Your task to perform on an android device: change alarm snooze length Image 0: 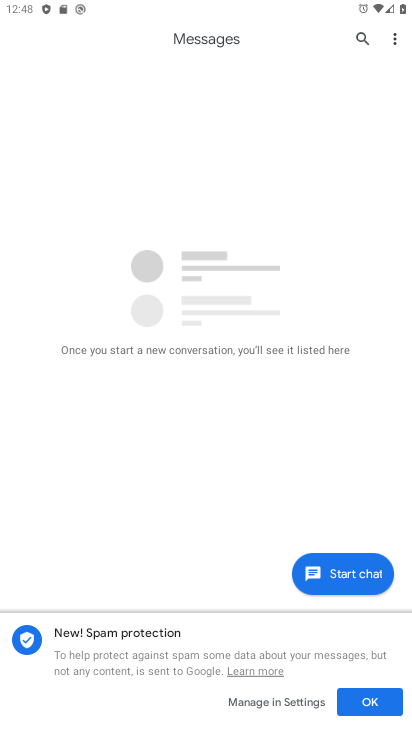
Step 0: press home button
Your task to perform on an android device: change alarm snooze length Image 1: 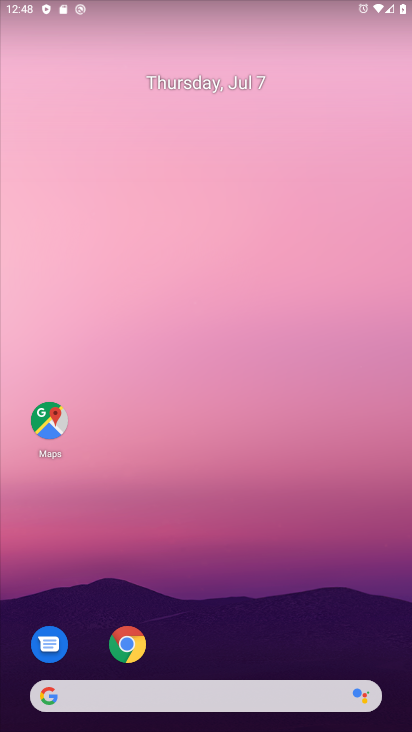
Step 1: drag from (54, 668) to (177, 67)
Your task to perform on an android device: change alarm snooze length Image 2: 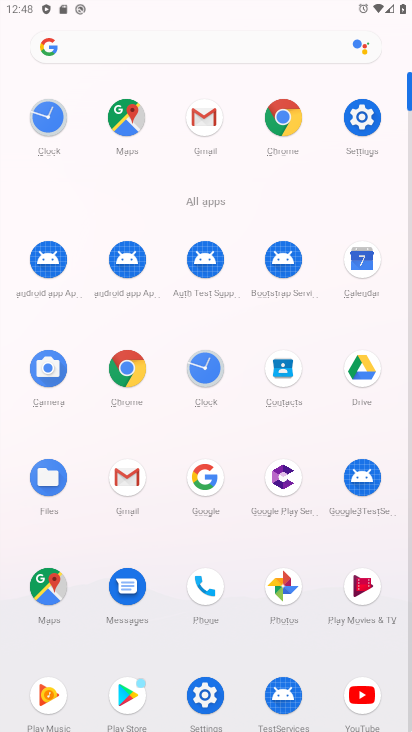
Step 2: click (200, 367)
Your task to perform on an android device: change alarm snooze length Image 3: 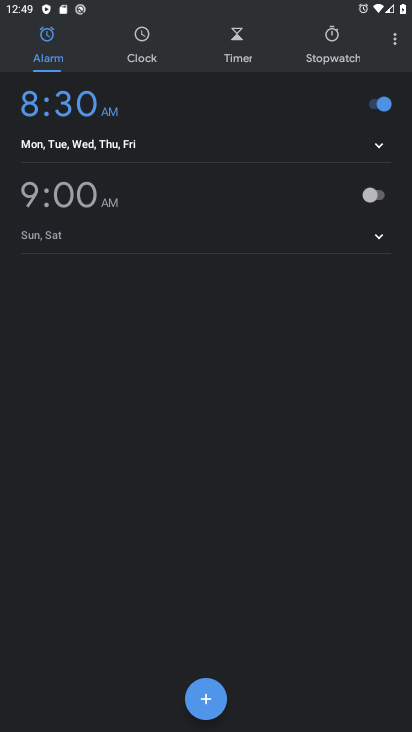
Step 3: click (392, 33)
Your task to perform on an android device: change alarm snooze length Image 4: 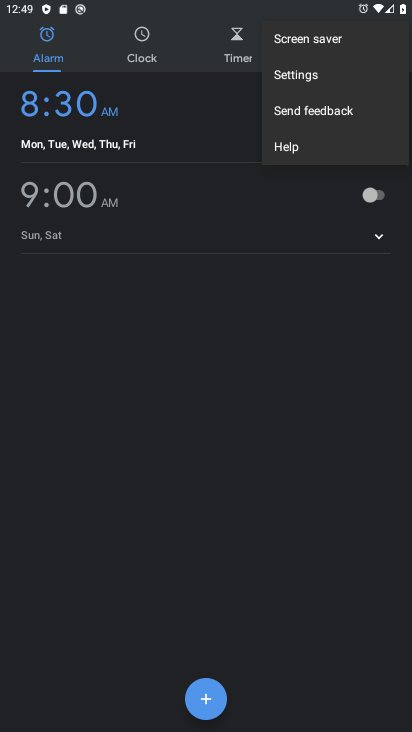
Step 4: click (305, 77)
Your task to perform on an android device: change alarm snooze length Image 5: 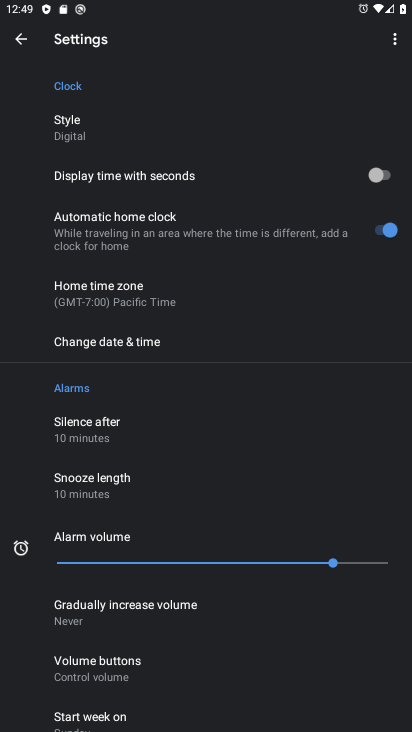
Step 5: click (112, 484)
Your task to perform on an android device: change alarm snooze length Image 6: 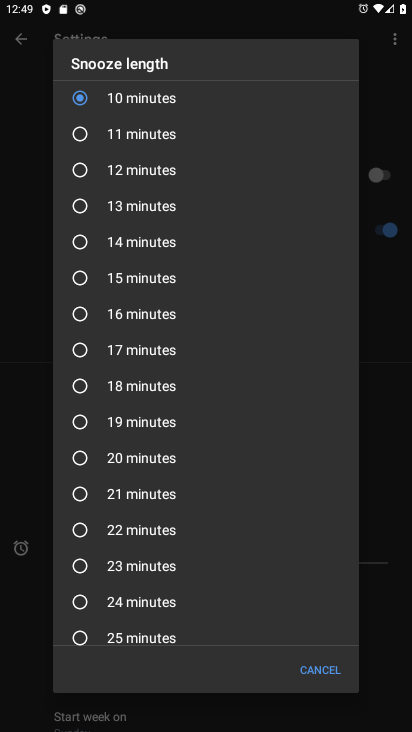
Step 6: click (83, 276)
Your task to perform on an android device: change alarm snooze length Image 7: 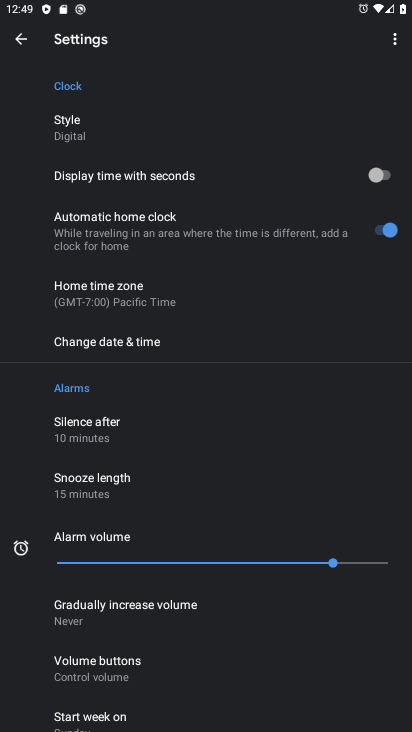
Step 7: task complete